Your task to perform on an android device: check android version Image 0: 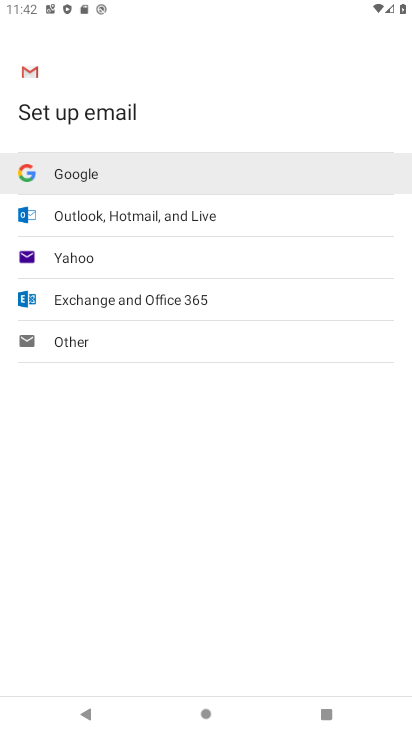
Step 0: press home button
Your task to perform on an android device: check android version Image 1: 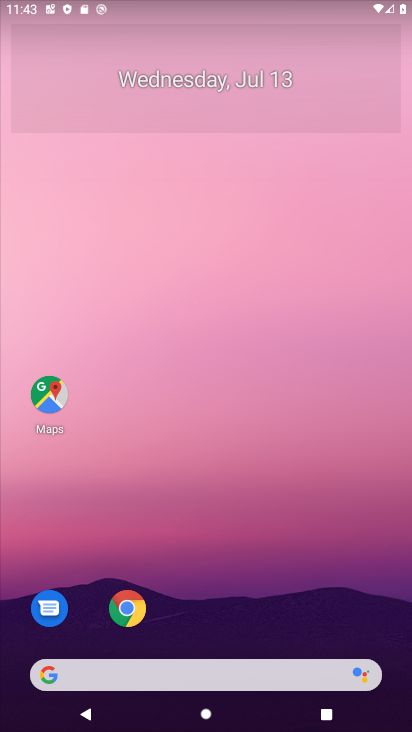
Step 1: drag from (146, 687) to (179, 204)
Your task to perform on an android device: check android version Image 2: 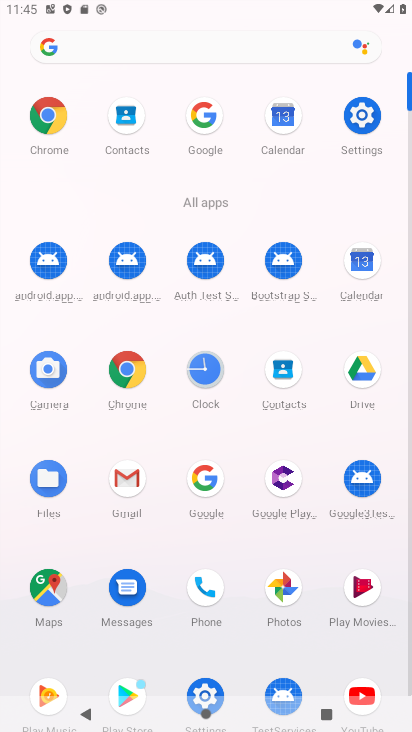
Step 2: click (359, 115)
Your task to perform on an android device: check android version Image 3: 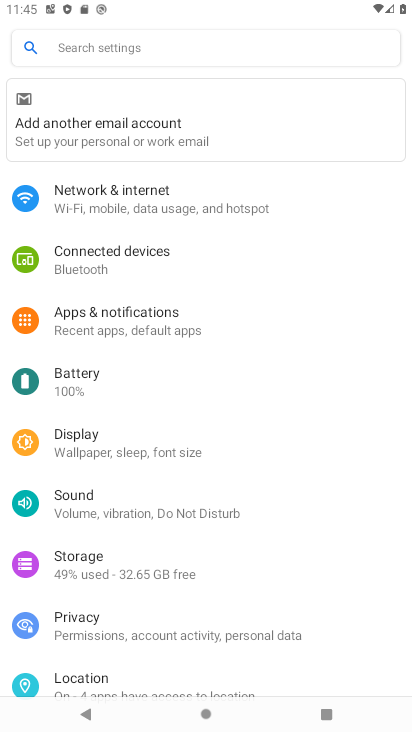
Step 3: drag from (307, 570) to (289, 94)
Your task to perform on an android device: check android version Image 4: 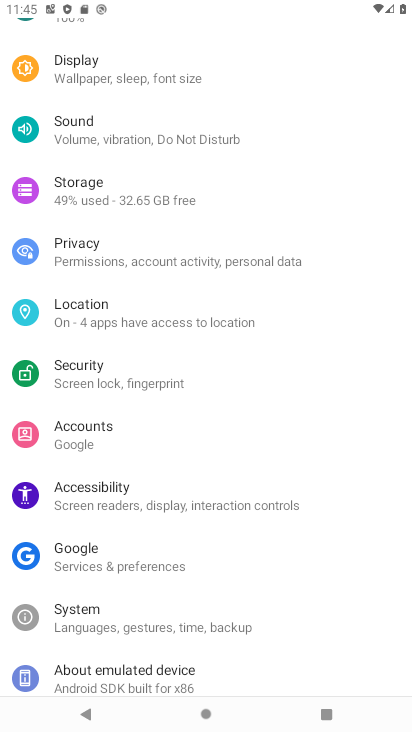
Step 4: drag from (243, 682) to (325, 307)
Your task to perform on an android device: check android version Image 5: 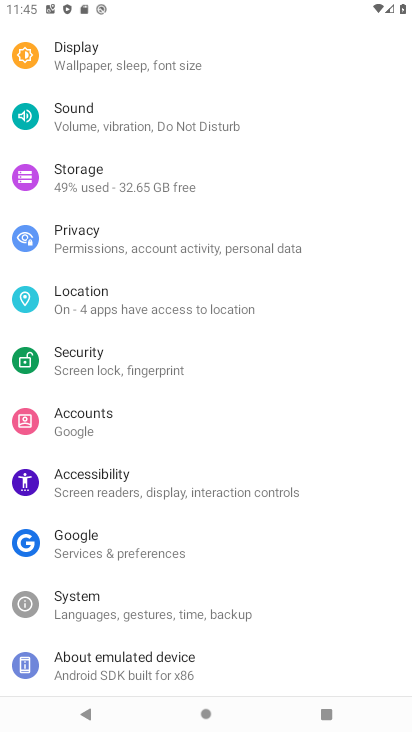
Step 5: click (201, 655)
Your task to perform on an android device: check android version Image 6: 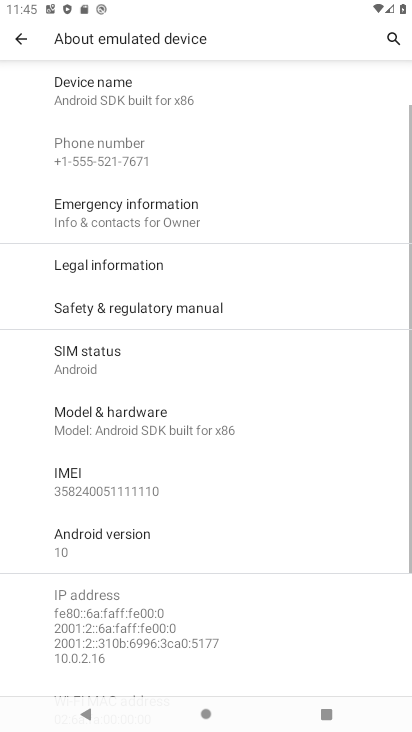
Step 6: task complete